Your task to perform on an android device: Open the calendar and show me this week's events? Image 0: 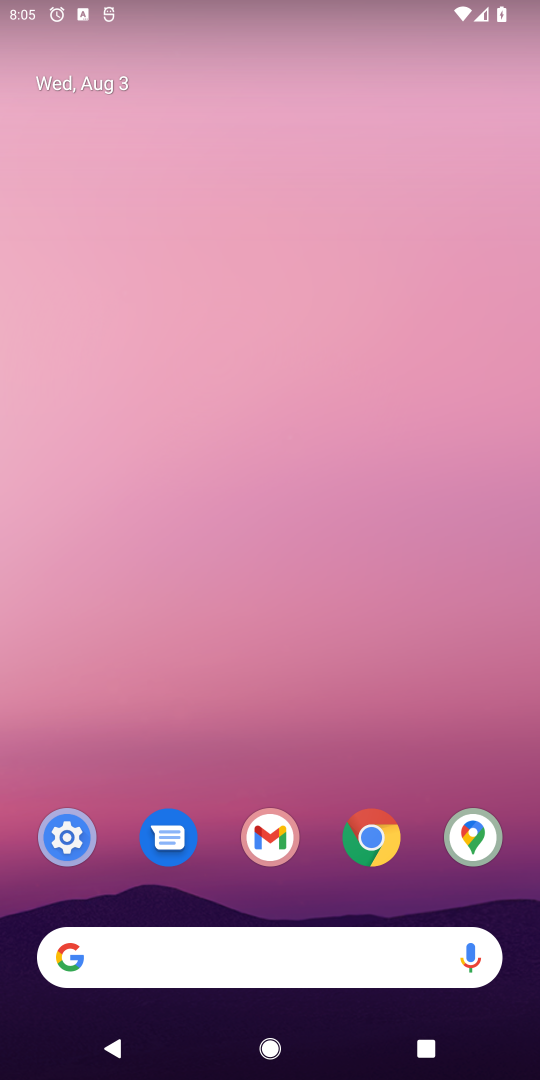
Step 0: drag from (306, 896) to (363, 406)
Your task to perform on an android device: Open the calendar and show me this week's events? Image 1: 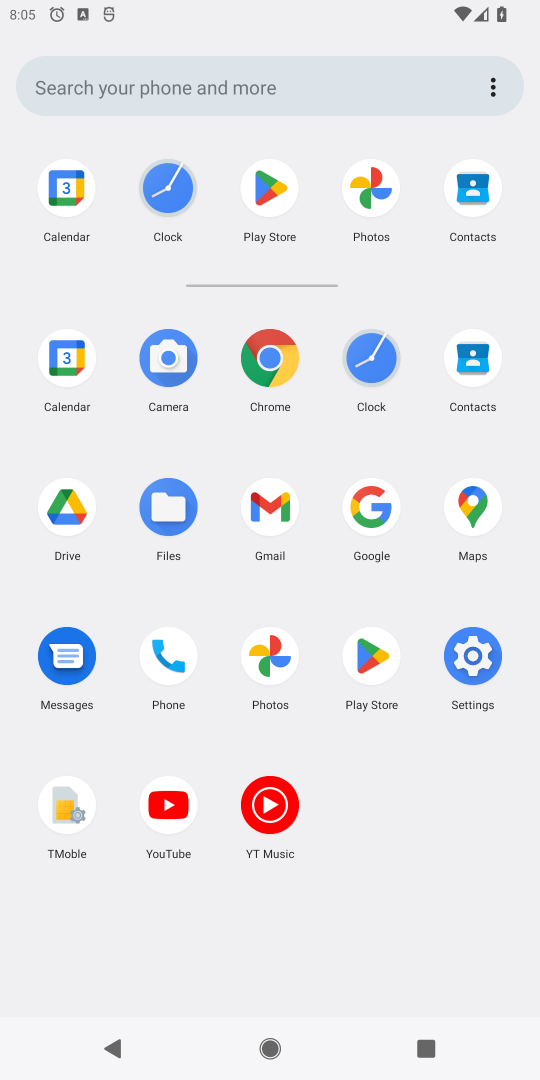
Step 1: click (59, 362)
Your task to perform on an android device: Open the calendar and show me this week's events? Image 2: 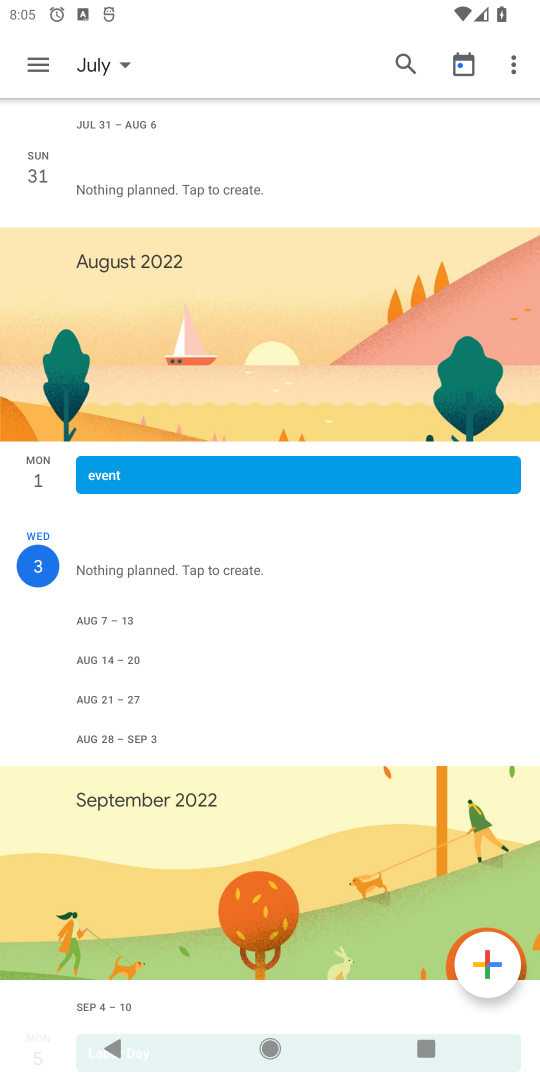
Step 2: click (38, 67)
Your task to perform on an android device: Open the calendar and show me this week's events? Image 3: 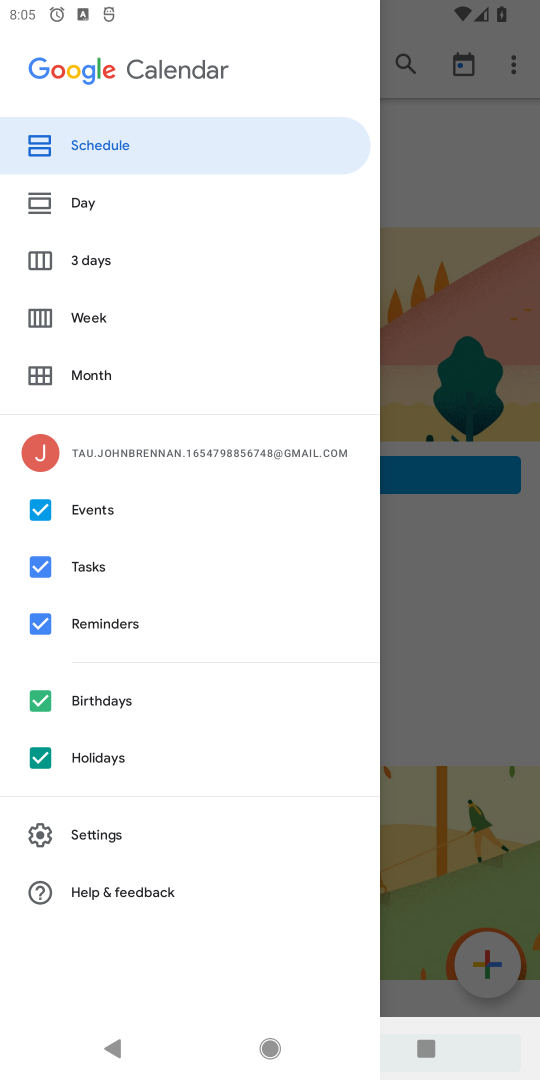
Step 3: click (83, 321)
Your task to perform on an android device: Open the calendar and show me this week's events? Image 4: 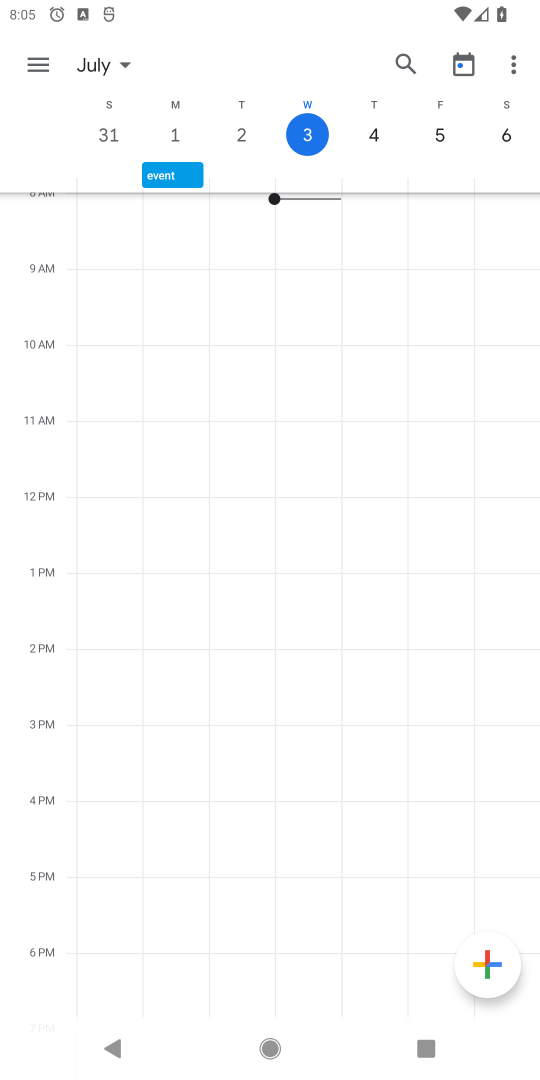
Step 4: task complete